Your task to perform on an android device: Open settings Image 0: 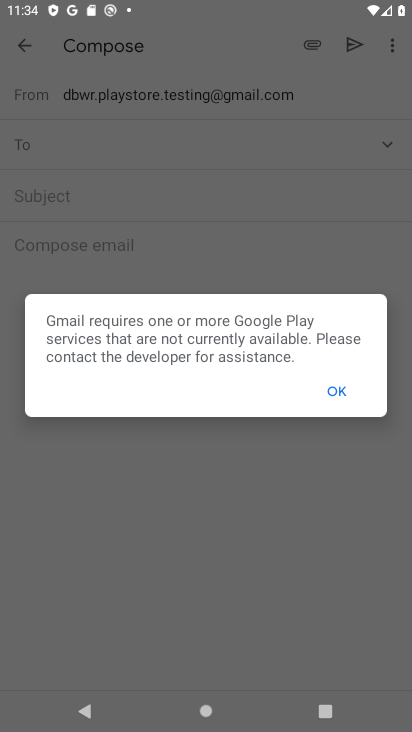
Step 0: press home button
Your task to perform on an android device: Open settings Image 1: 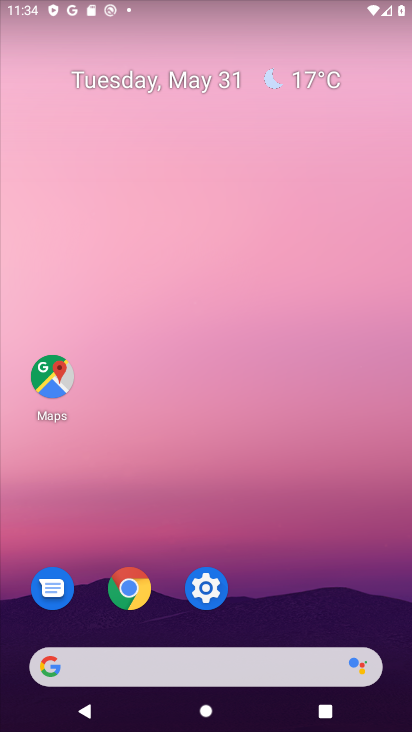
Step 1: click (197, 594)
Your task to perform on an android device: Open settings Image 2: 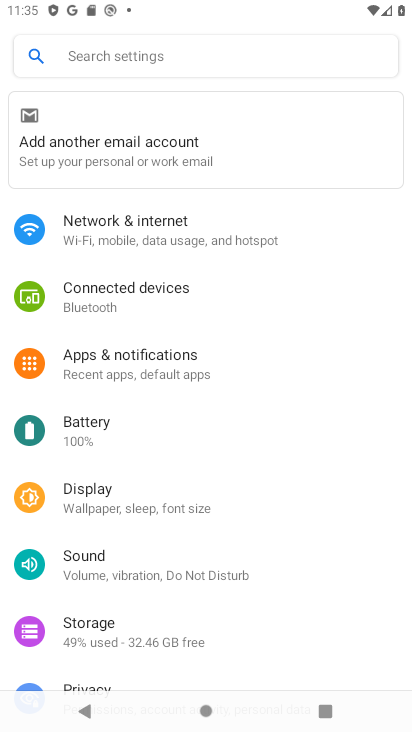
Step 2: task complete